Your task to perform on an android device: change text size in settings app Image 0: 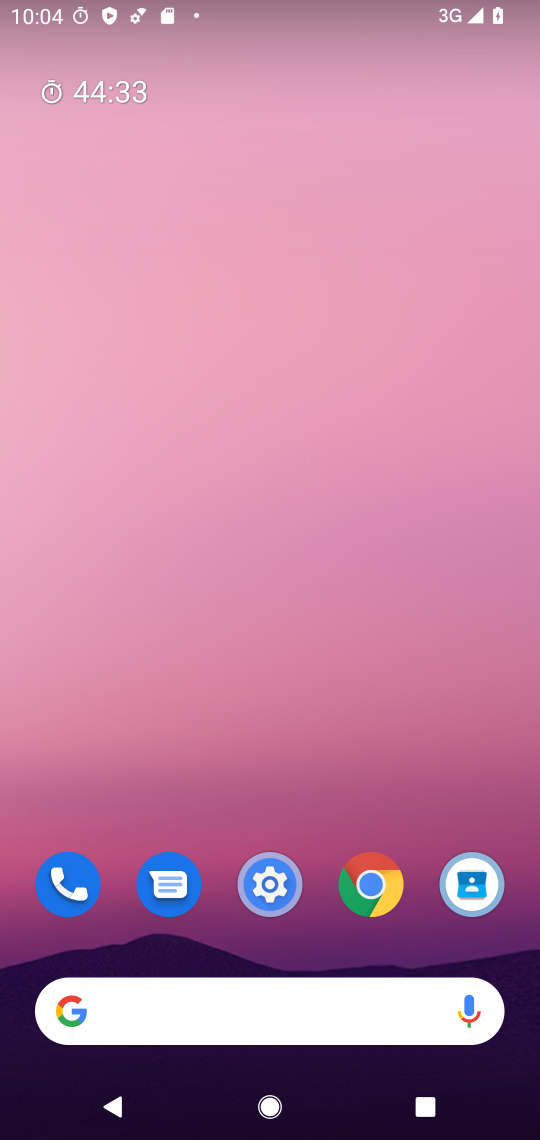
Step 0: click (274, 889)
Your task to perform on an android device: change text size in settings app Image 1: 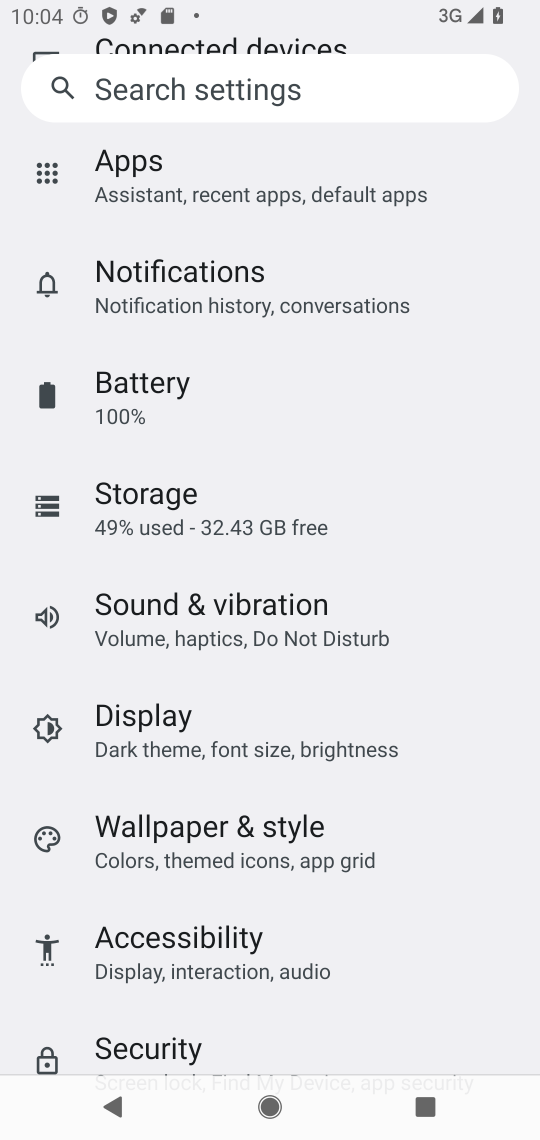
Step 1: drag from (275, 298) to (286, 728)
Your task to perform on an android device: change text size in settings app Image 2: 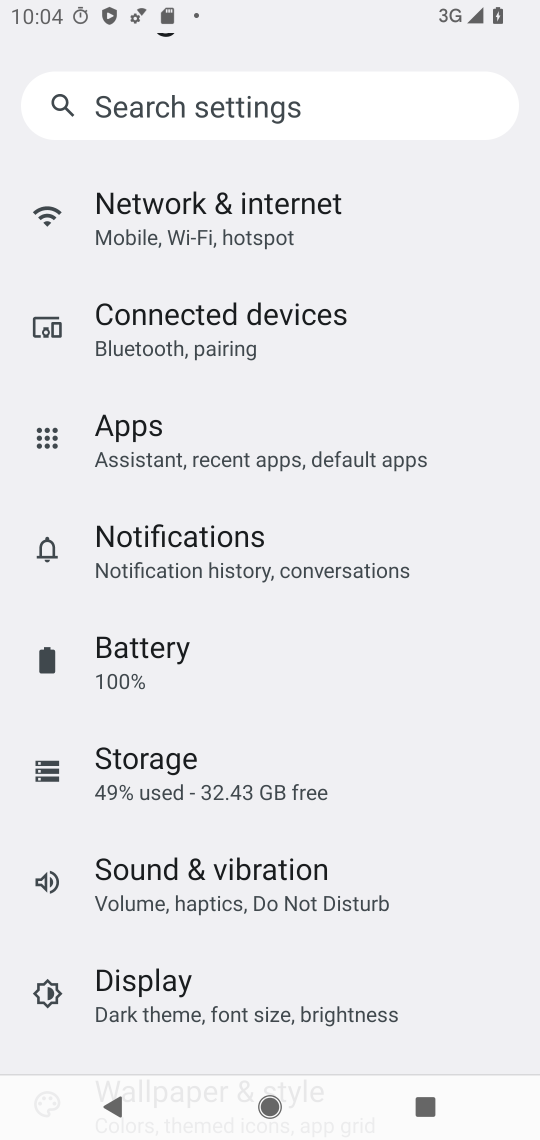
Step 2: drag from (269, 343) to (350, 512)
Your task to perform on an android device: change text size in settings app Image 3: 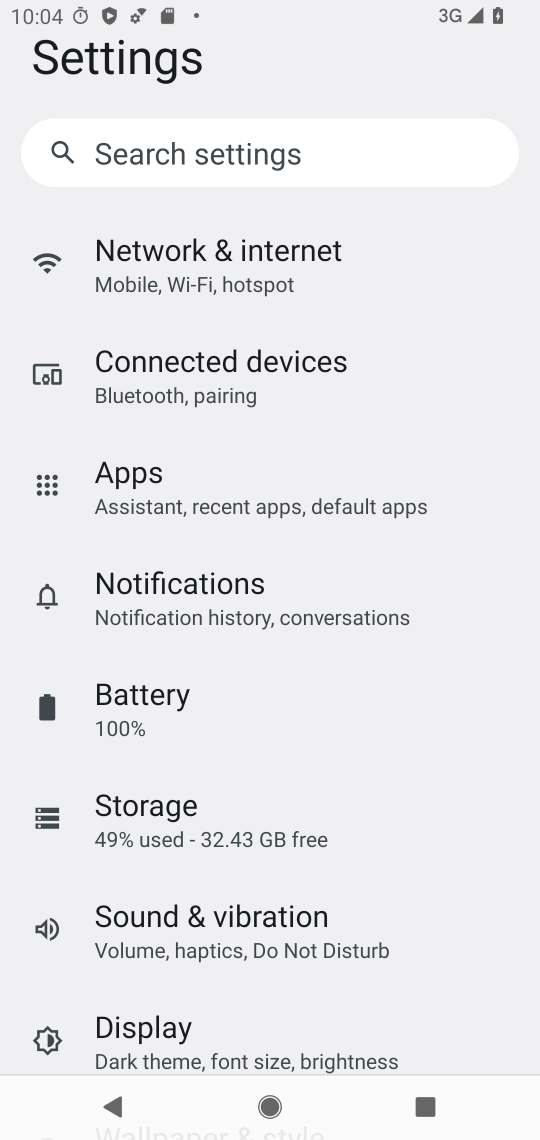
Step 3: click (246, 1026)
Your task to perform on an android device: change text size in settings app Image 4: 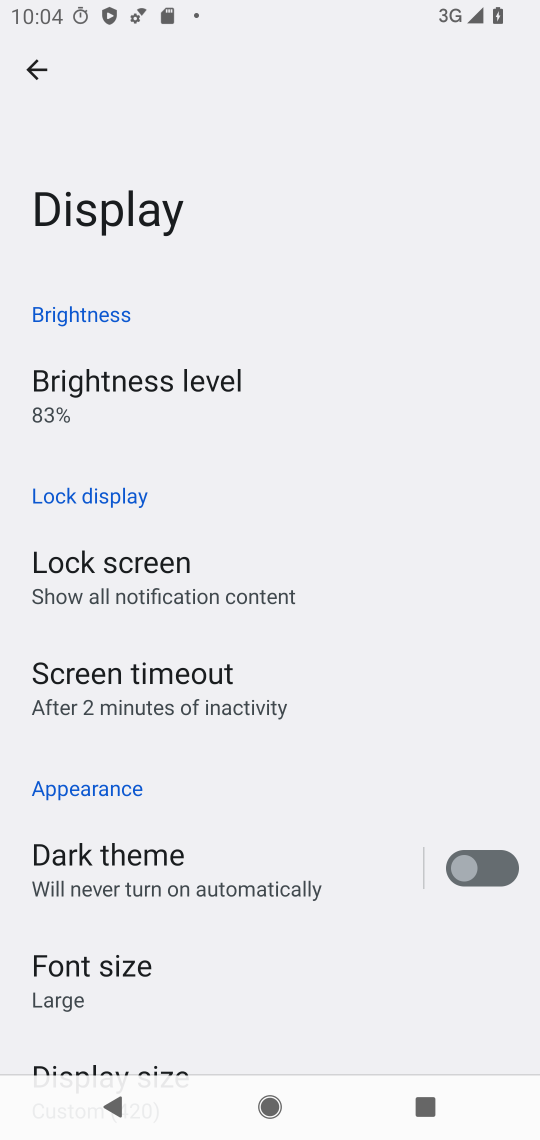
Step 4: drag from (206, 968) to (247, 621)
Your task to perform on an android device: change text size in settings app Image 5: 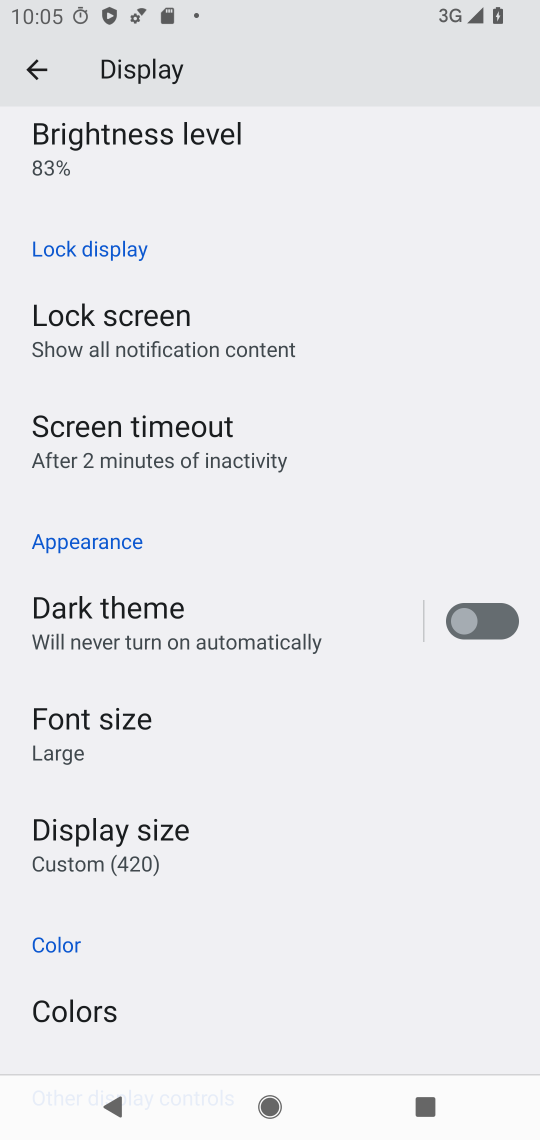
Step 5: click (89, 770)
Your task to perform on an android device: change text size in settings app Image 6: 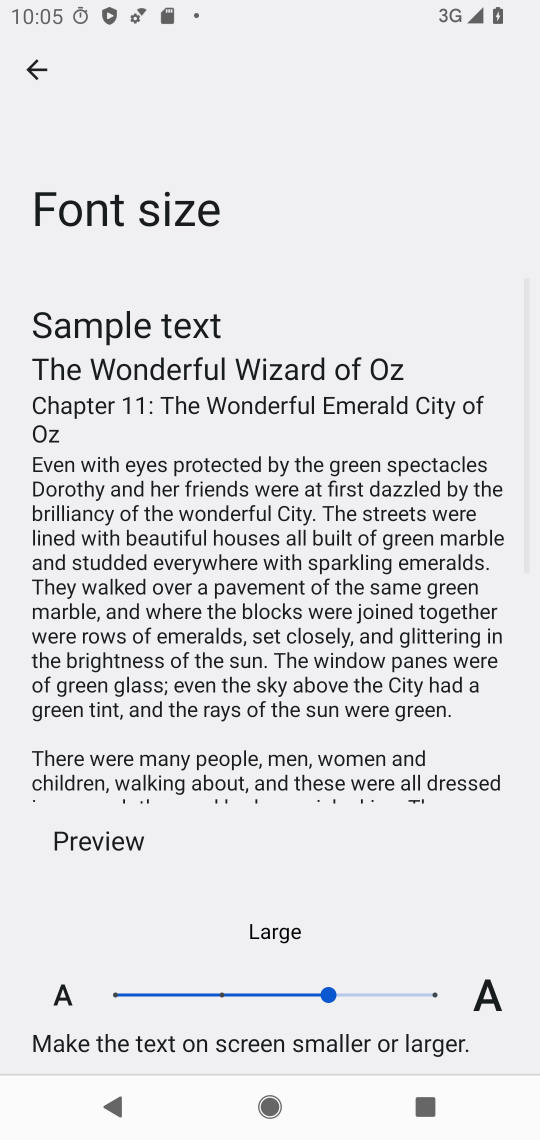
Step 6: click (428, 983)
Your task to perform on an android device: change text size in settings app Image 7: 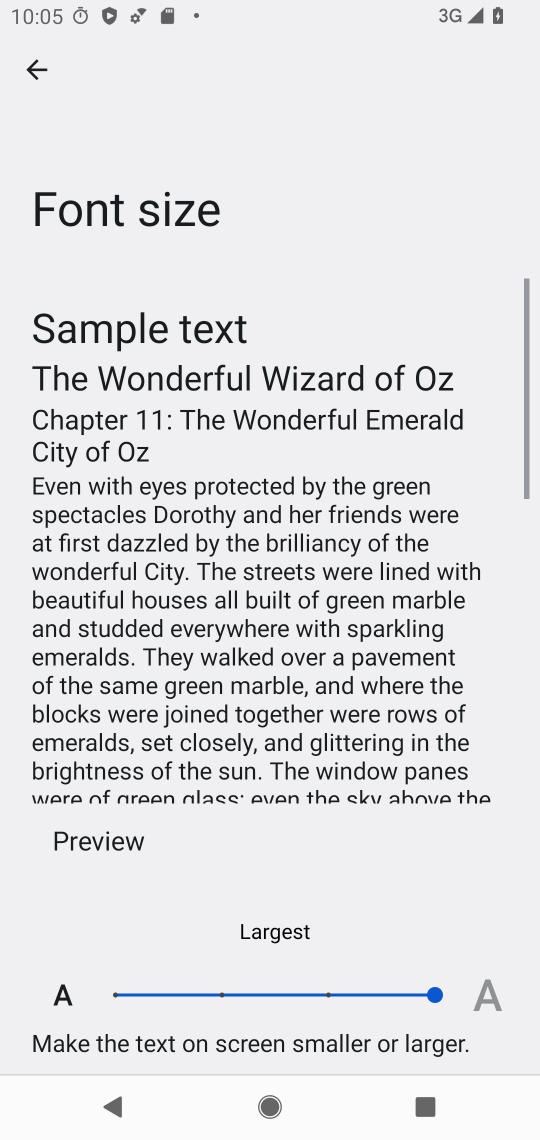
Step 7: task complete